Your task to perform on an android device: turn off wifi Image 0: 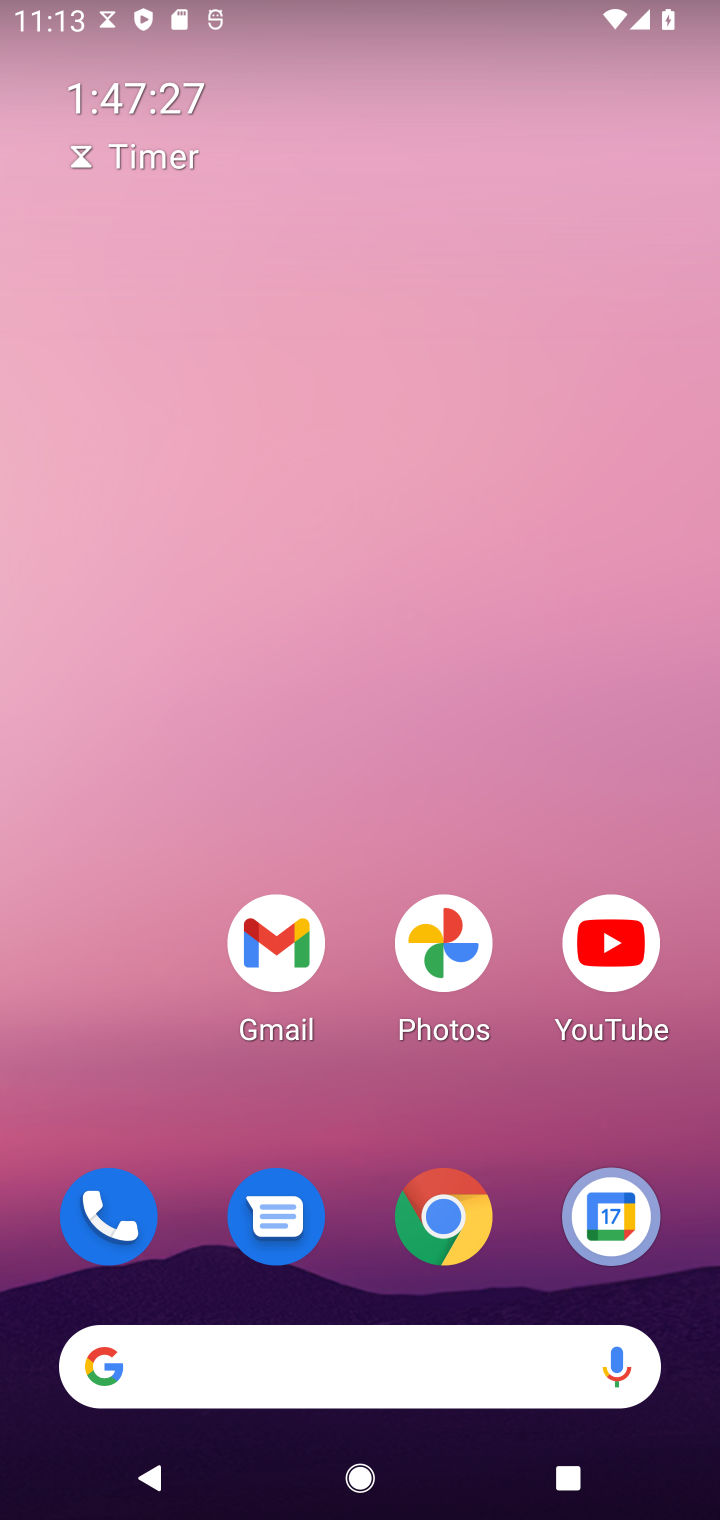
Step 0: drag from (333, 3) to (317, 781)
Your task to perform on an android device: turn off wifi Image 1: 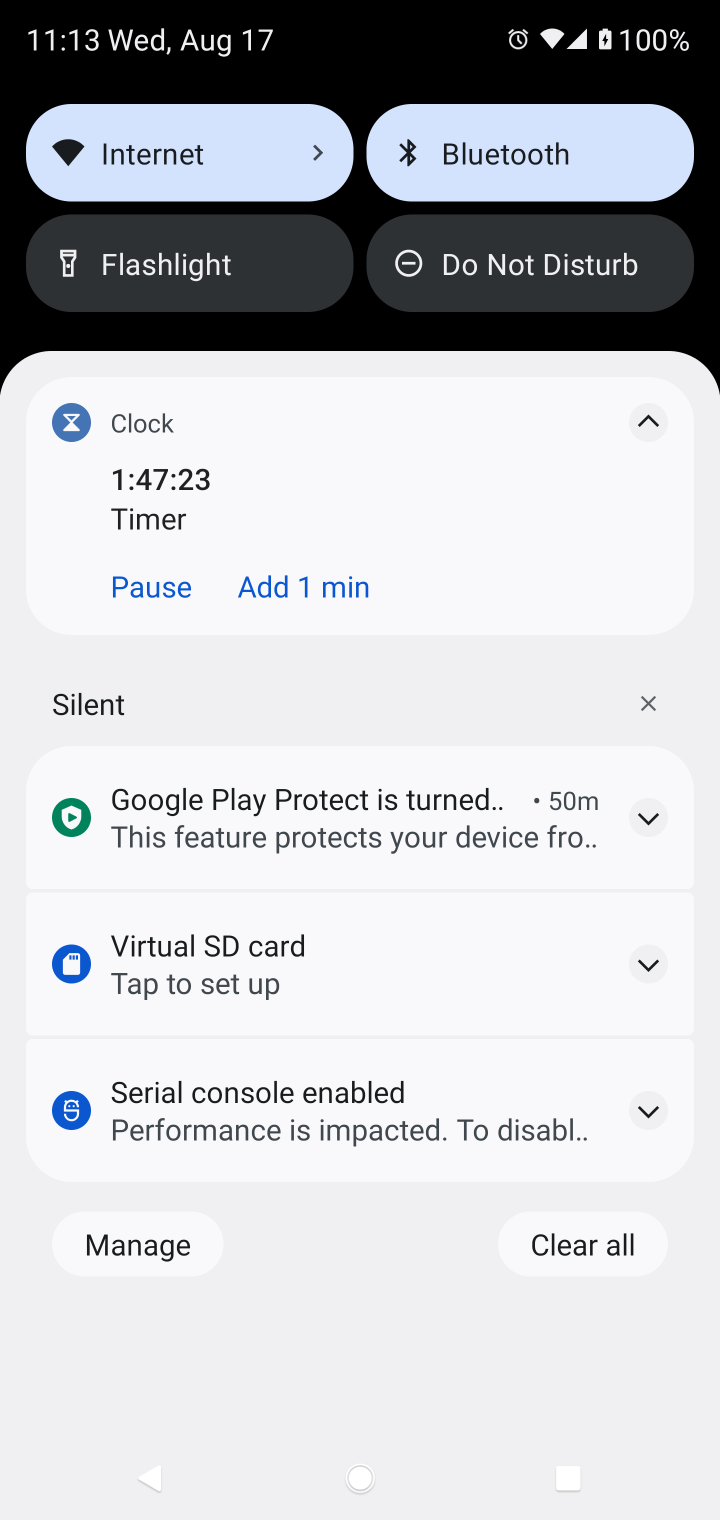
Step 1: click (176, 172)
Your task to perform on an android device: turn off wifi Image 2: 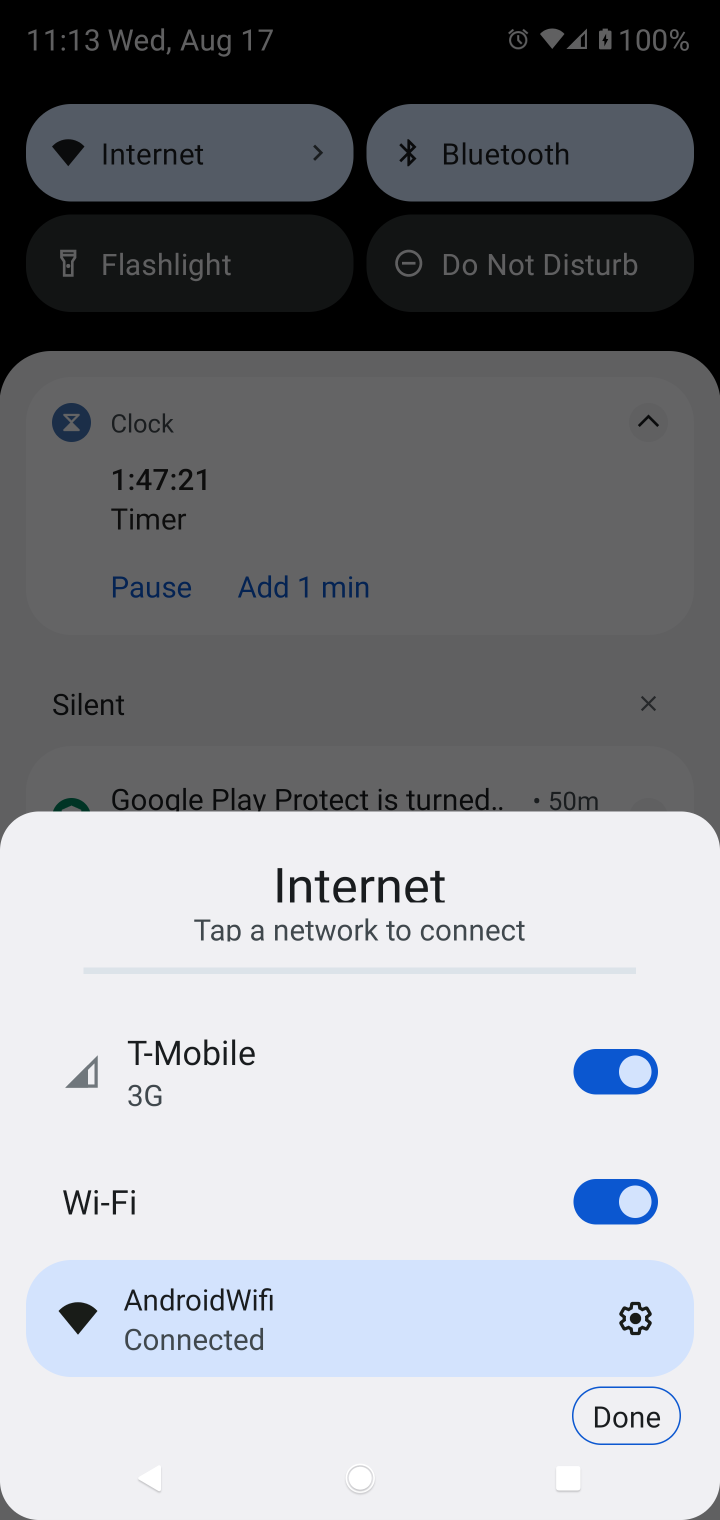
Step 2: click (623, 1205)
Your task to perform on an android device: turn off wifi Image 3: 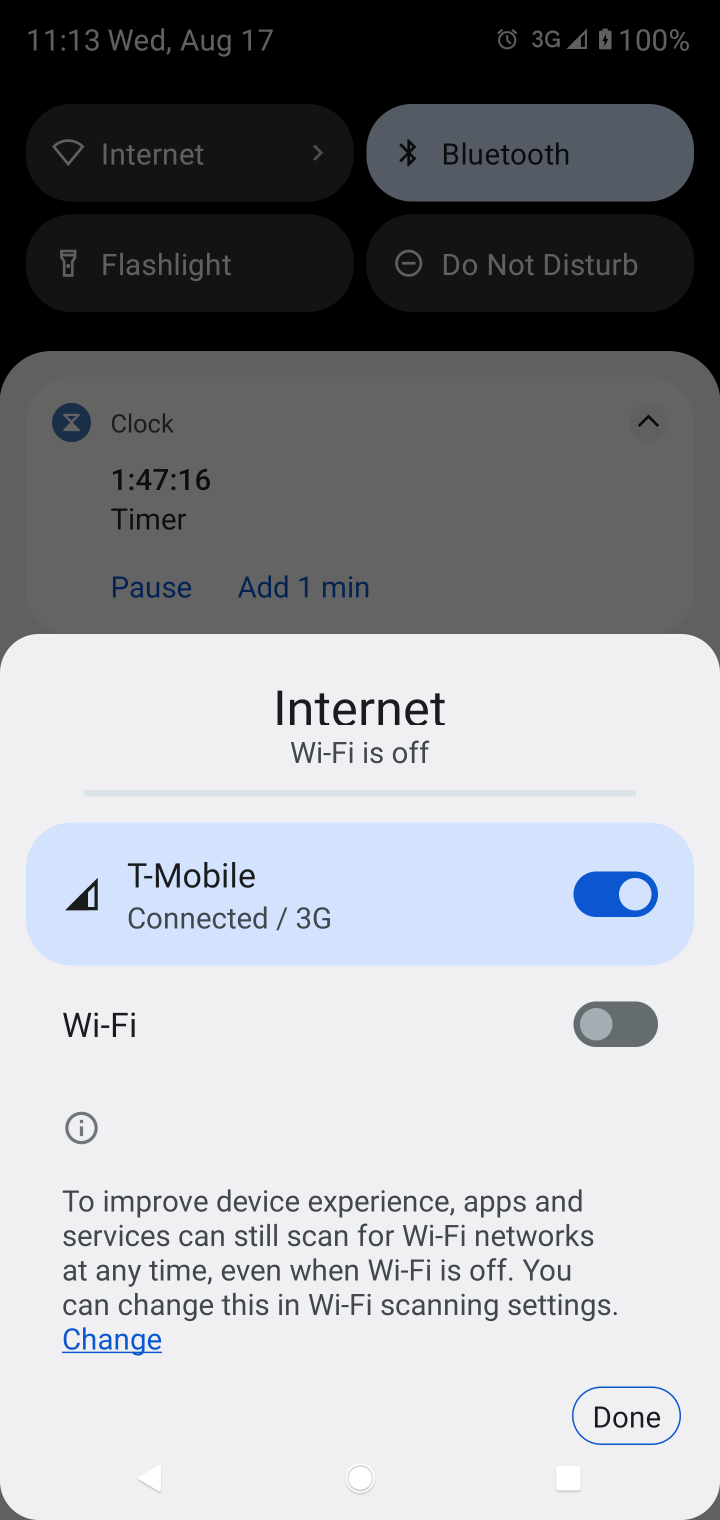
Step 3: task complete